Your task to perform on an android device: move an email to a new category in the gmail app Image 0: 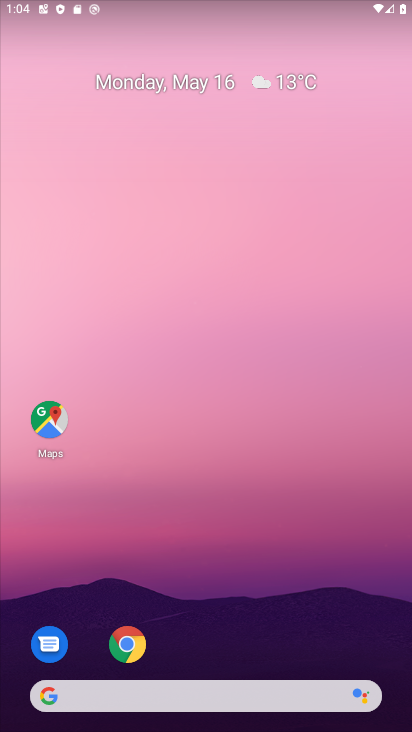
Step 0: drag from (221, 679) to (254, 132)
Your task to perform on an android device: move an email to a new category in the gmail app Image 1: 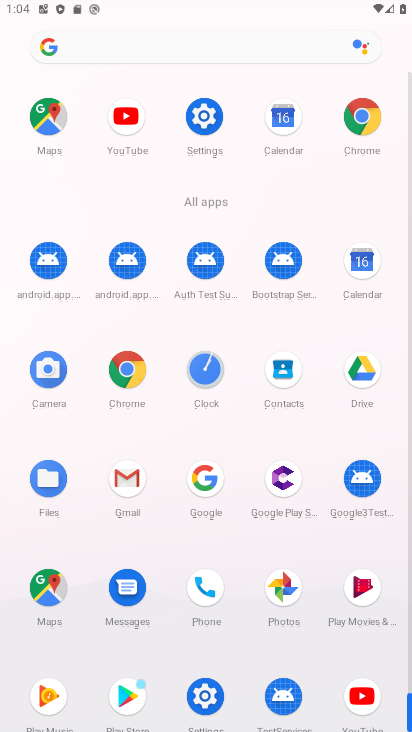
Step 1: click (119, 485)
Your task to perform on an android device: move an email to a new category in the gmail app Image 2: 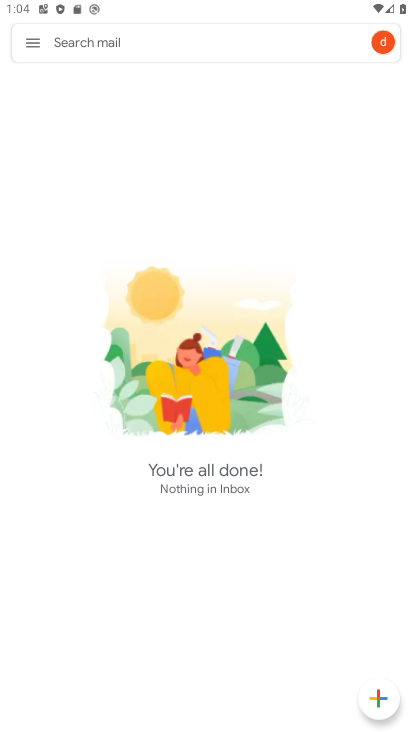
Step 2: click (37, 46)
Your task to perform on an android device: move an email to a new category in the gmail app Image 3: 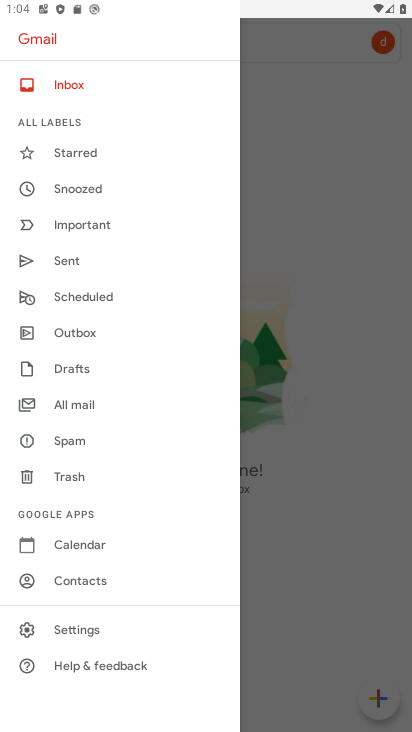
Step 3: click (62, 406)
Your task to perform on an android device: move an email to a new category in the gmail app Image 4: 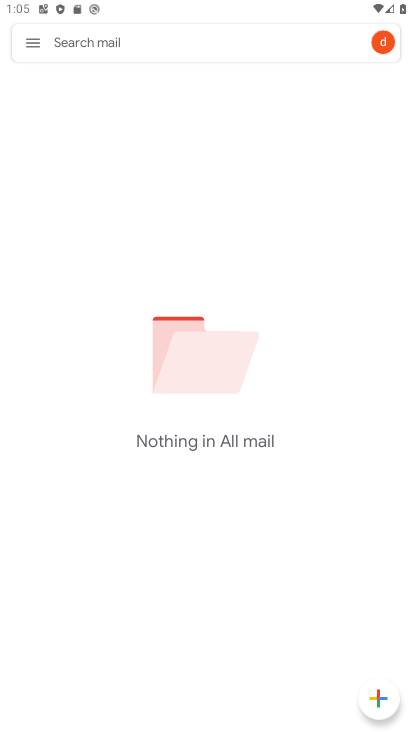
Step 4: task complete